Your task to perform on an android device: Set the phone to "Do not disturb". Image 0: 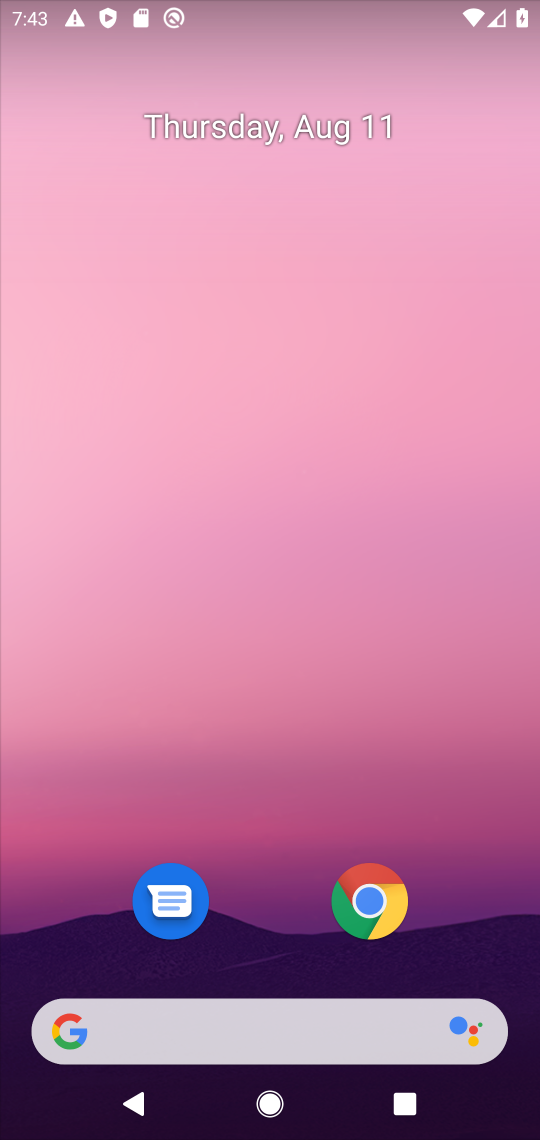
Step 0: drag from (271, 861) to (397, 49)
Your task to perform on an android device: Set the phone to "Do not disturb". Image 1: 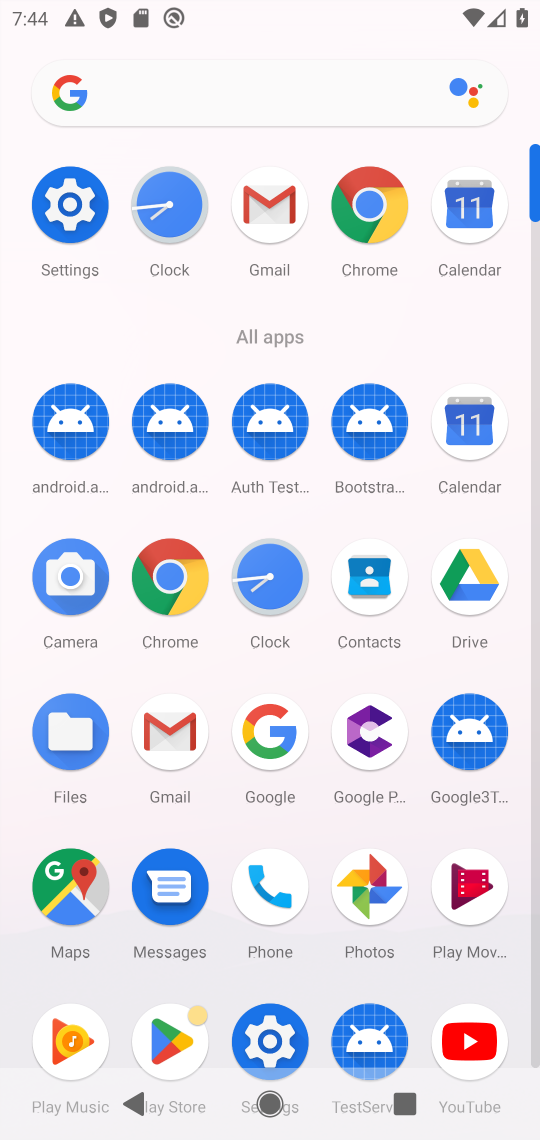
Step 1: drag from (382, 1) to (387, 653)
Your task to perform on an android device: Set the phone to "Do not disturb". Image 2: 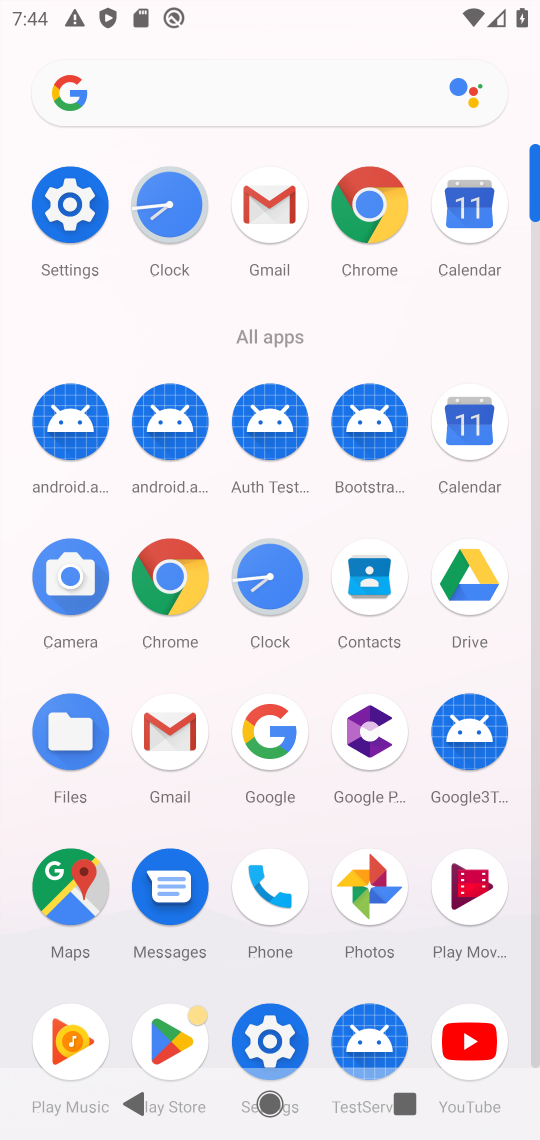
Step 2: drag from (266, 47) to (230, 869)
Your task to perform on an android device: Set the phone to "Do not disturb". Image 3: 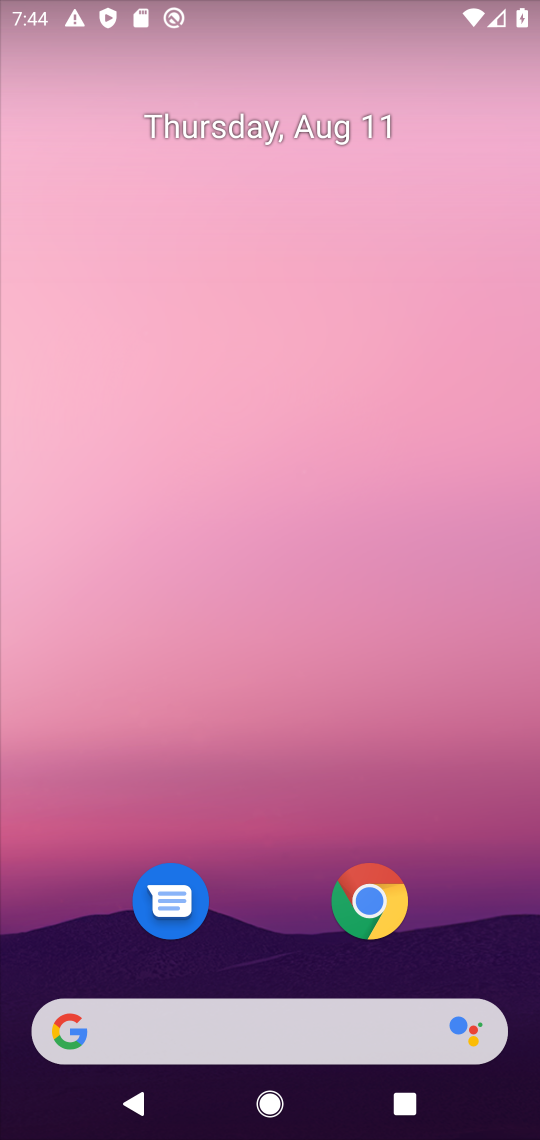
Step 3: drag from (349, 5) to (336, 803)
Your task to perform on an android device: Set the phone to "Do not disturb". Image 4: 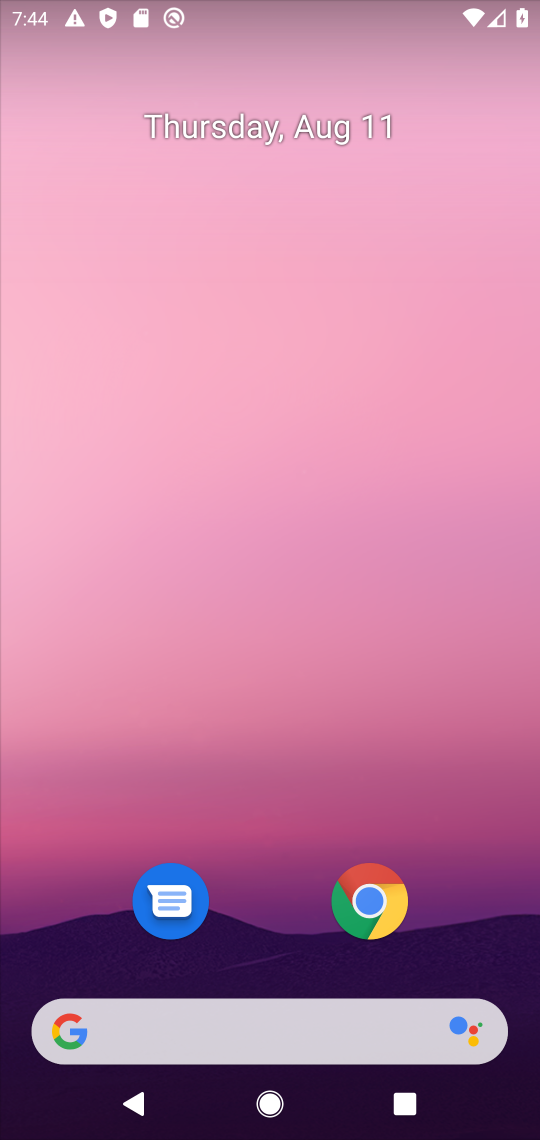
Step 4: drag from (213, 4) to (250, 712)
Your task to perform on an android device: Set the phone to "Do not disturb". Image 5: 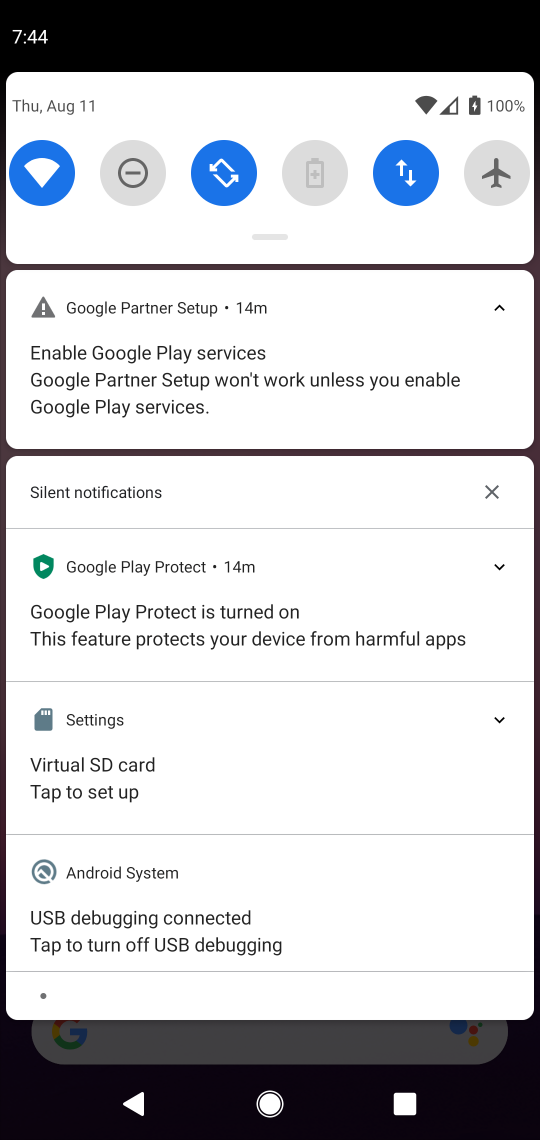
Step 5: click (136, 155)
Your task to perform on an android device: Set the phone to "Do not disturb". Image 6: 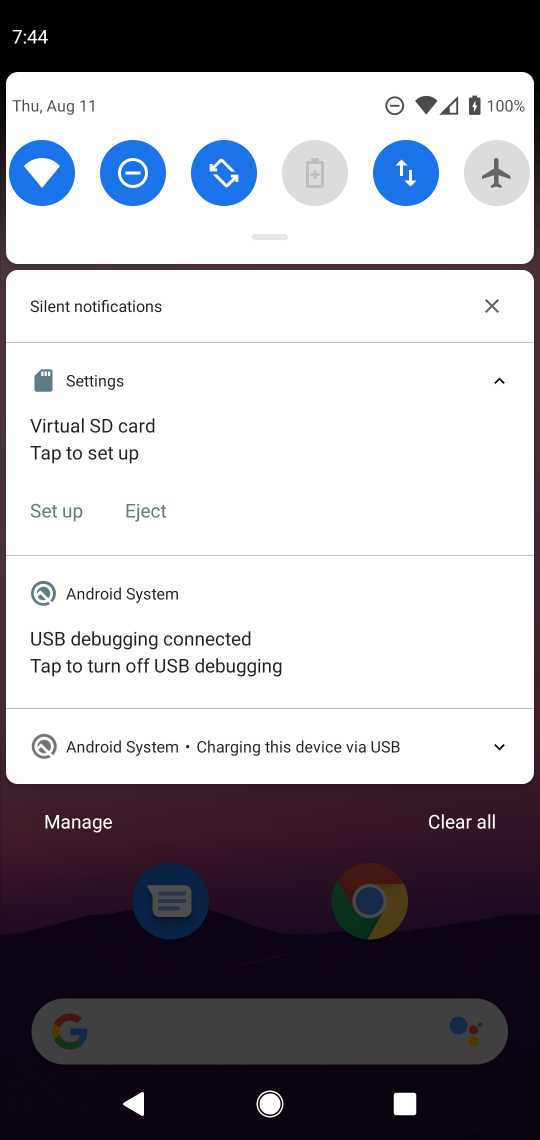
Step 6: task complete